Your task to perform on an android device: Go to ESPN.com Image 0: 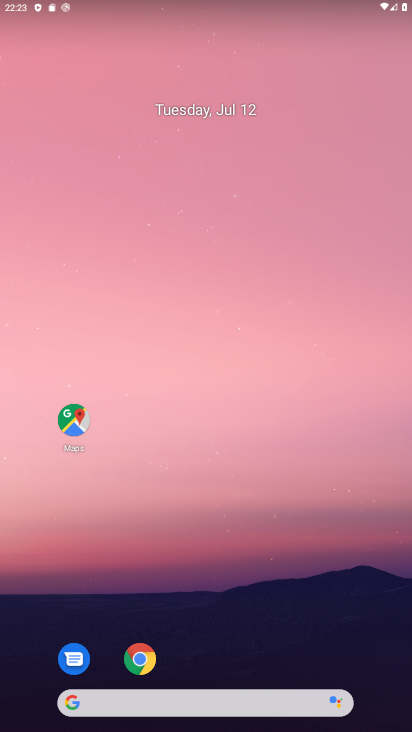
Step 0: drag from (228, 610) to (272, 220)
Your task to perform on an android device: Go to ESPN.com Image 1: 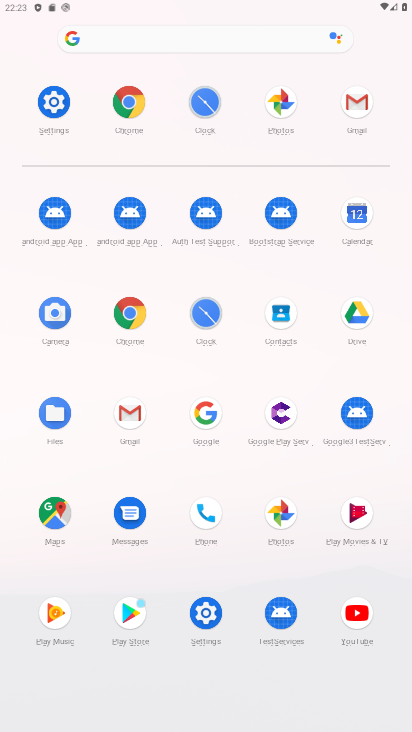
Step 1: click (123, 105)
Your task to perform on an android device: Go to ESPN.com Image 2: 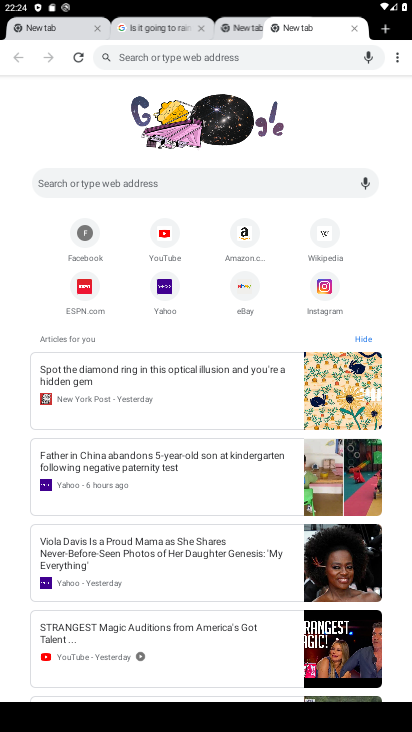
Step 2: click (93, 292)
Your task to perform on an android device: Go to ESPN.com Image 3: 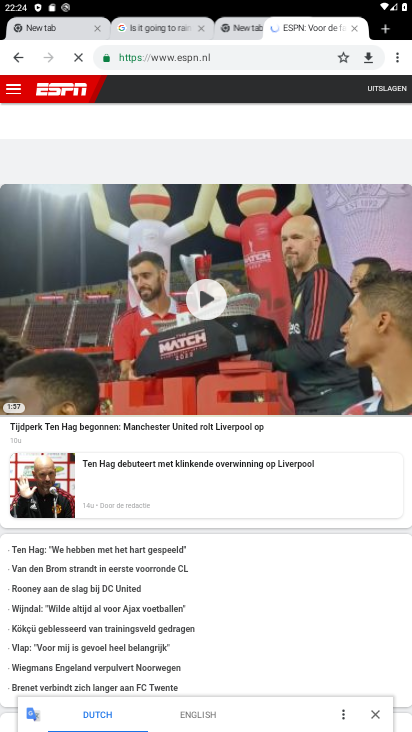
Step 3: task complete